Your task to perform on an android device: Go to Android settings Image 0: 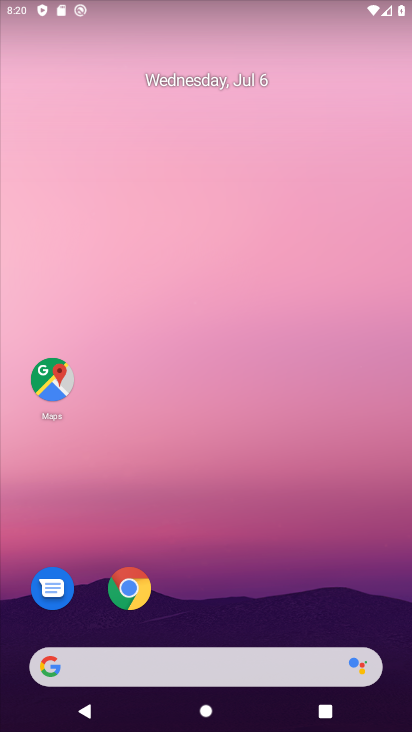
Step 0: drag from (259, 563) to (274, 111)
Your task to perform on an android device: Go to Android settings Image 1: 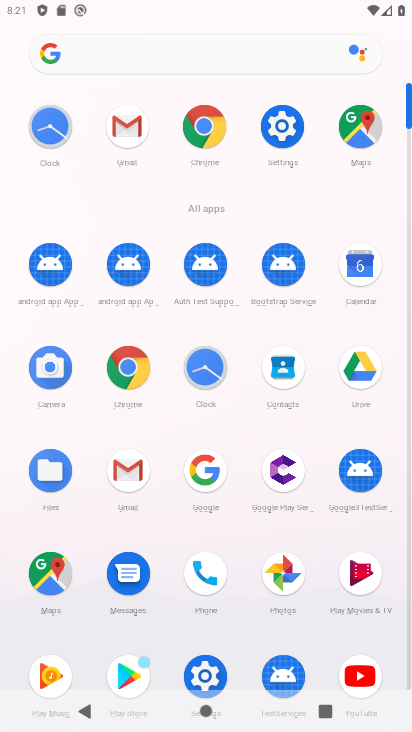
Step 1: click (276, 119)
Your task to perform on an android device: Go to Android settings Image 2: 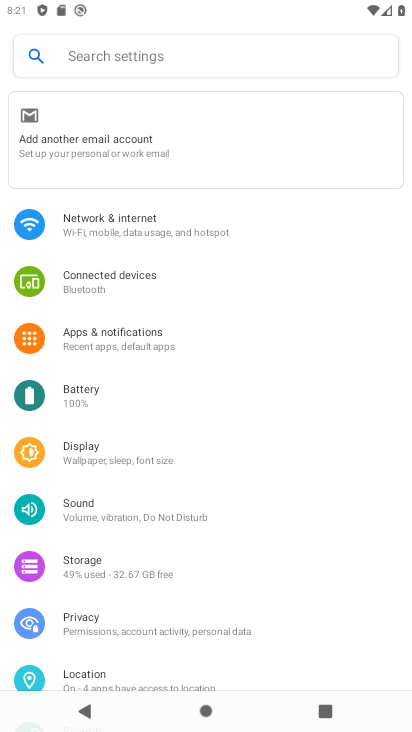
Step 2: task complete